Your task to perform on an android device: What's the latest news in cosmology? Image 0: 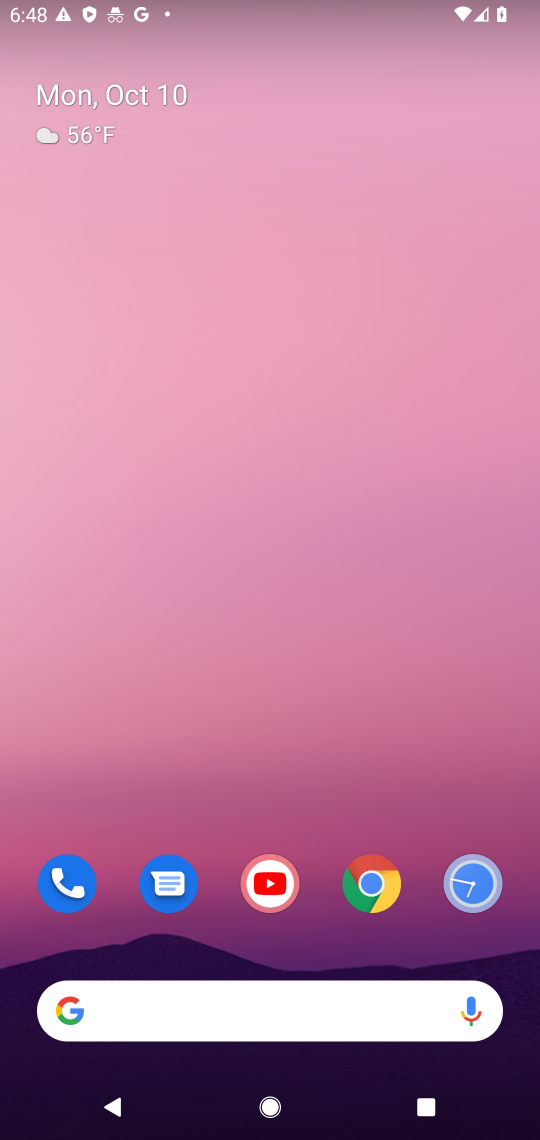
Step 0: drag from (358, 1014) to (321, 732)
Your task to perform on an android device: What's the latest news in cosmology? Image 1: 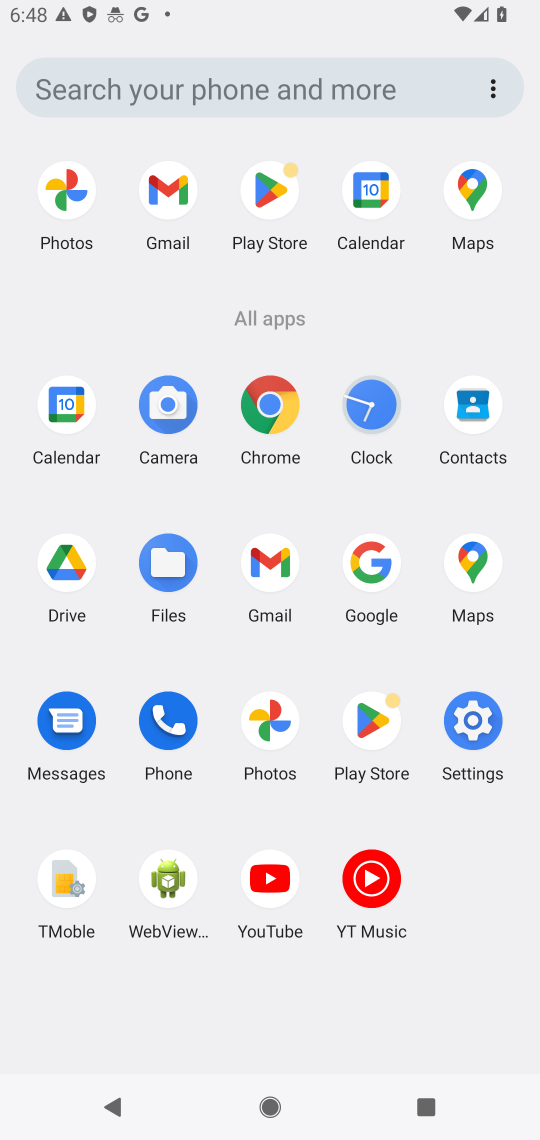
Step 1: click (370, 532)
Your task to perform on an android device: What's the latest news in cosmology? Image 2: 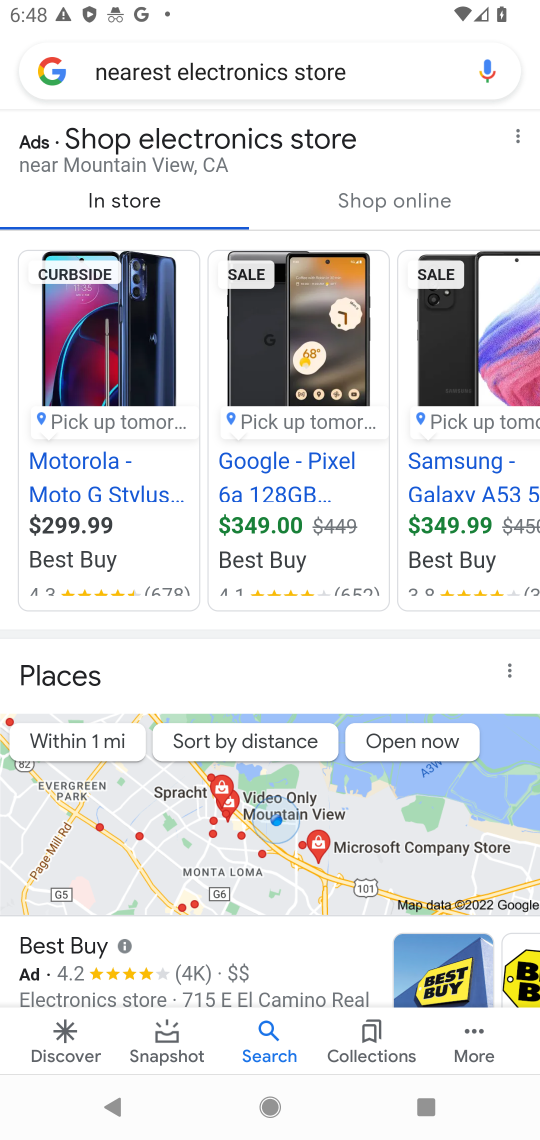
Step 2: click (401, 78)
Your task to perform on an android device: What's the latest news in cosmology? Image 3: 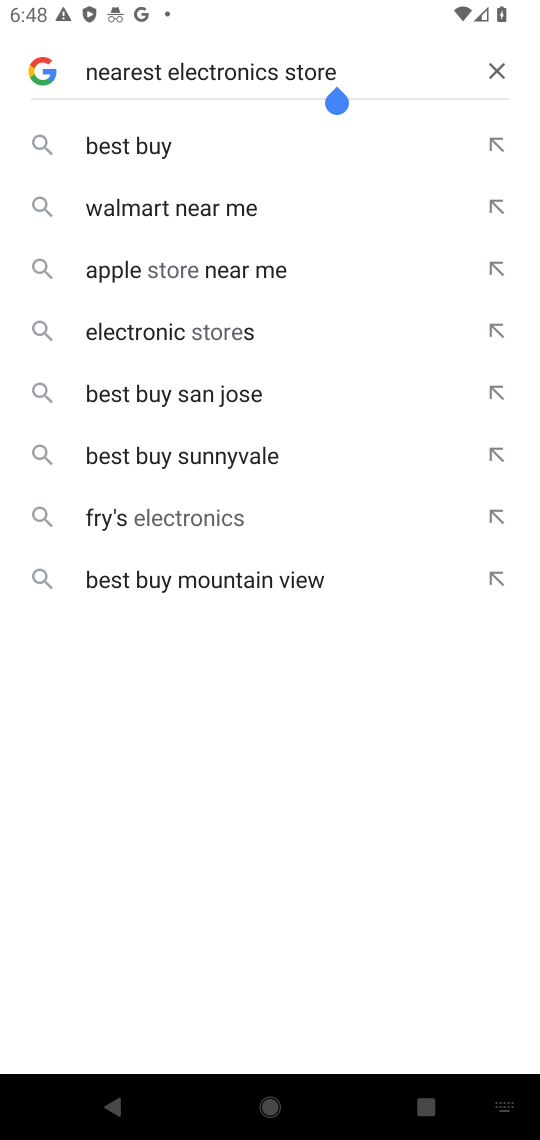
Step 3: click (488, 79)
Your task to perform on an android device: What's the latest news in cosmology? Image 4: 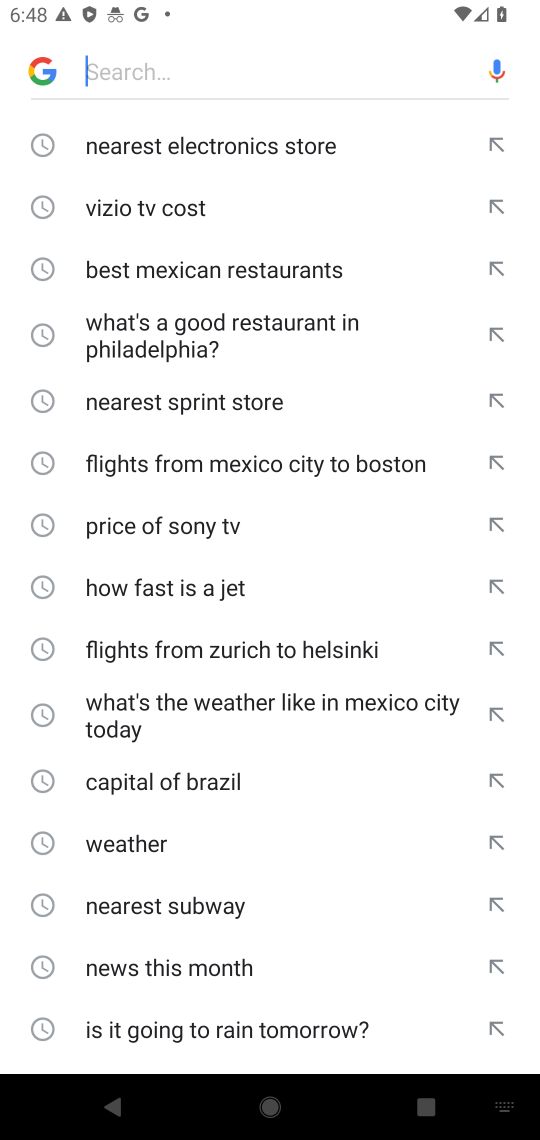
Step 4: type "latest news in cosmology"
Your task to perform on an android device: What's the latest news in cosmology? Image 5: 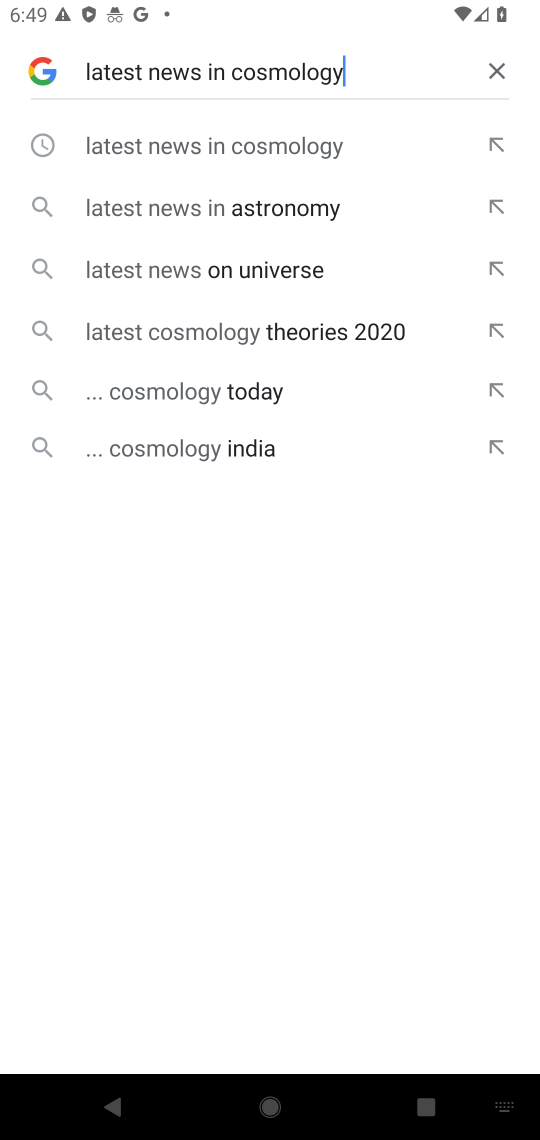
Step 5: click (326, 149)
Your task to perform on an android device: What's the latest news in cosmology? Image 6: 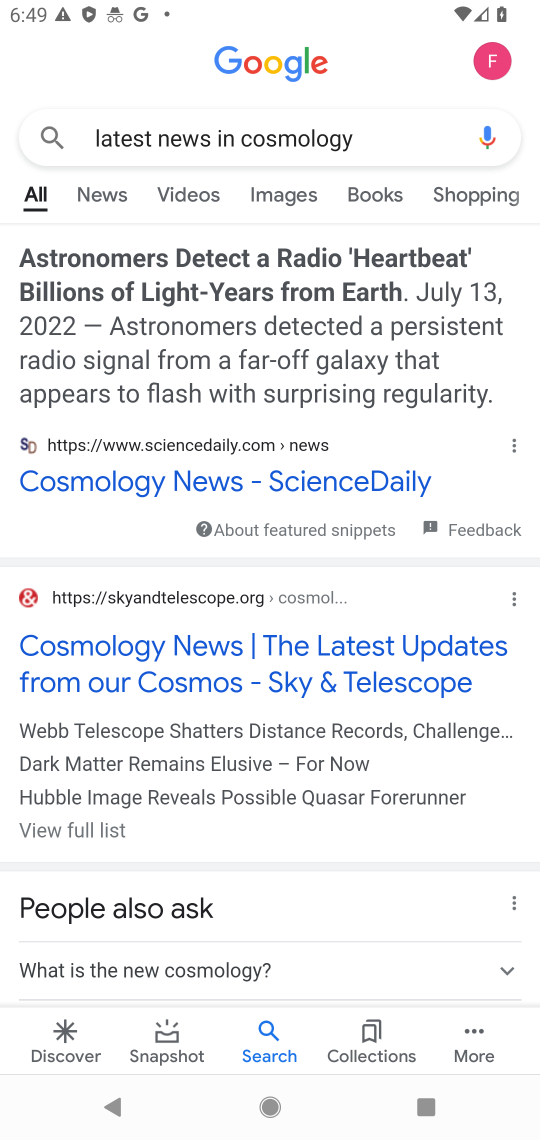
Step 6: task complete